Your task to perform on an android device: Open the stopwatch Image 0: 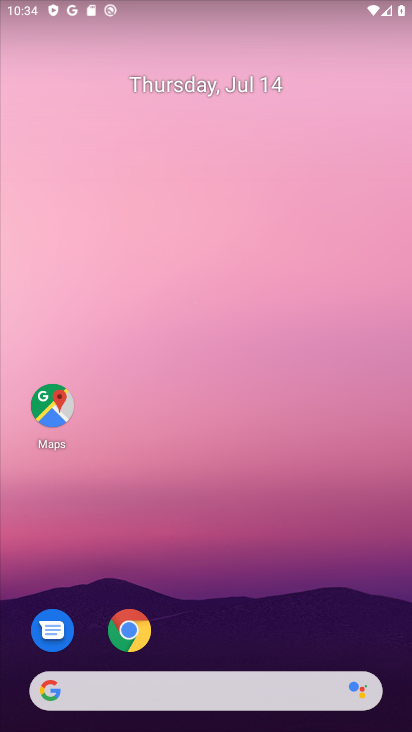
Step 0: drag from (258, 542) to (251, 9)
Your task to perform on an android device: Open the stopwatch Image 1: 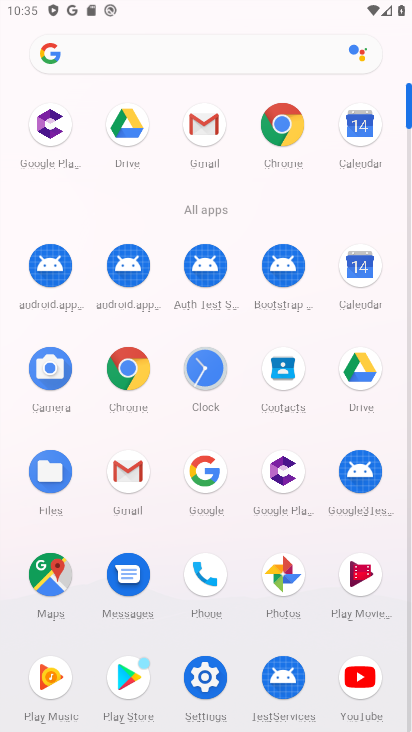
Step 1: click (209, 364)
Your task to perform on an android device: Open the stopwatch Image 2: 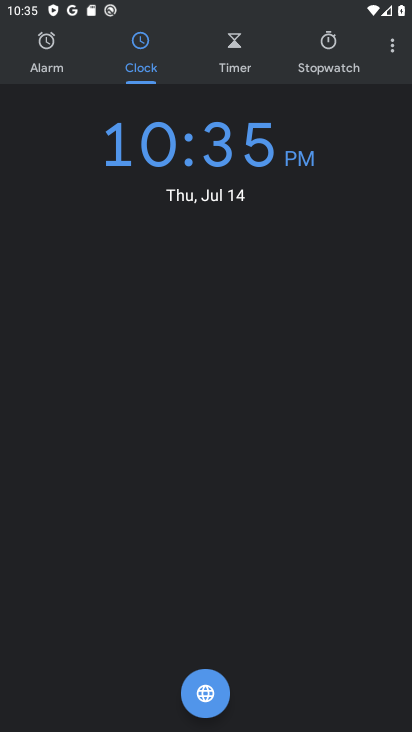
Step 2: click (319, 54)
Your task to perform on an android device: Open the stopwatch Image 3: 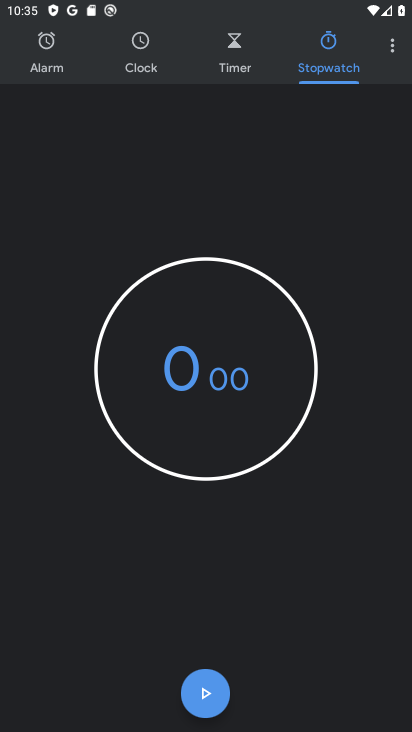
Step 3: task complete